Your task to perform on an android device: delete the emails in spam in the gmail app Image 0: 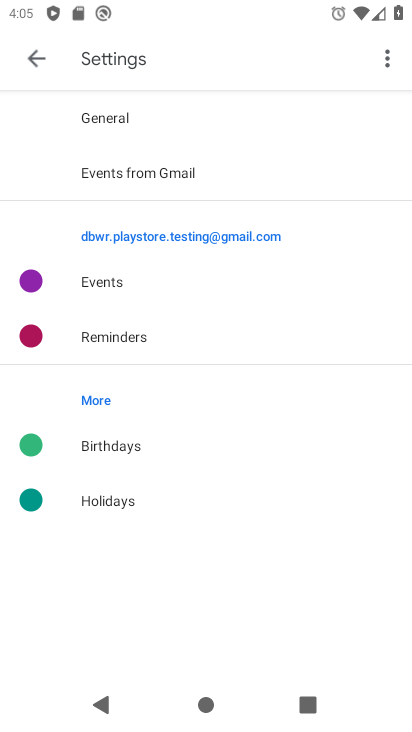
Step 0: drag from (296, 541) to (319, 386)
Your task to perform on an android device: delete the emails in spam in the gmail app Image 1: 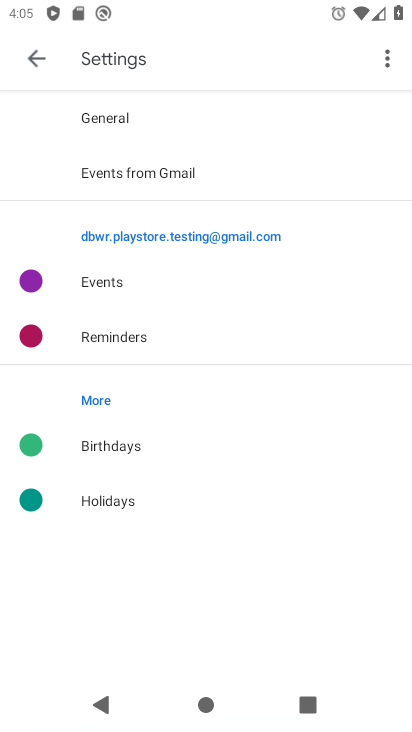
Step 1: press home button
Your task to perform on an android device: delete the emails in spam in the gmail app Image 2: 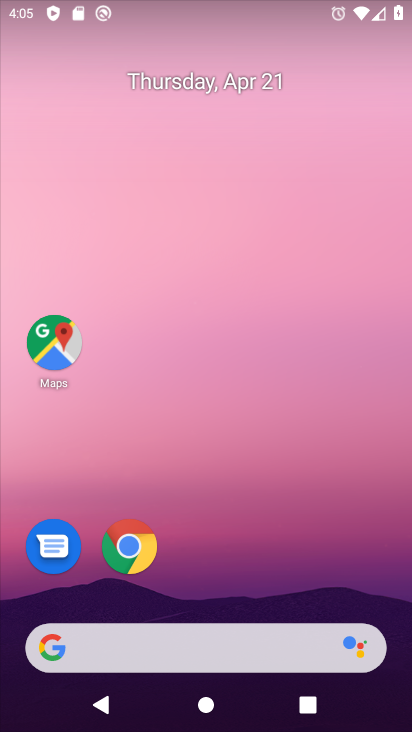
Step 2: drag from (245, 565) to (240, 179)
Your task to perform on an android device: delete the emails in spam in the gmail app Image 3: 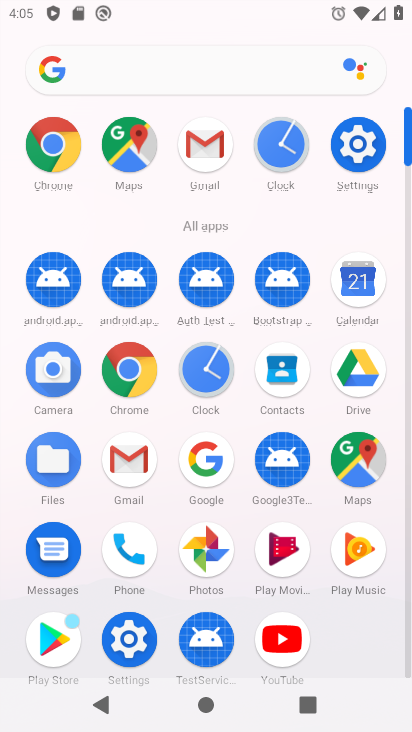
Step 3: click (135, 463)
Your task to perform on an android device: delete the emails in spam in the gmail app Image 4: 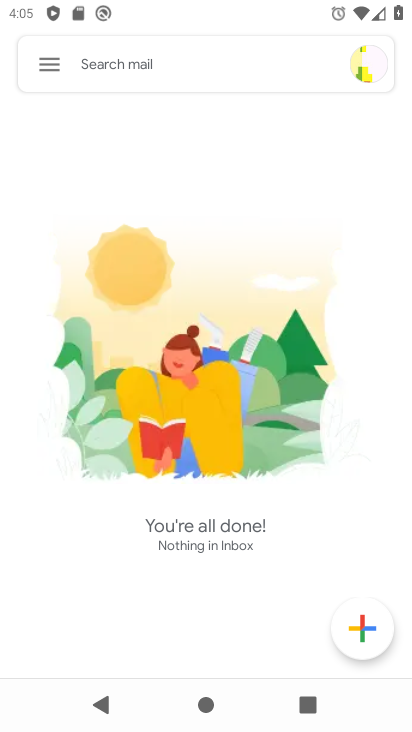
Step 4: click (44, 63)
Your task to perform on an android device: delete the emails in spam in the gmail app Image 5: 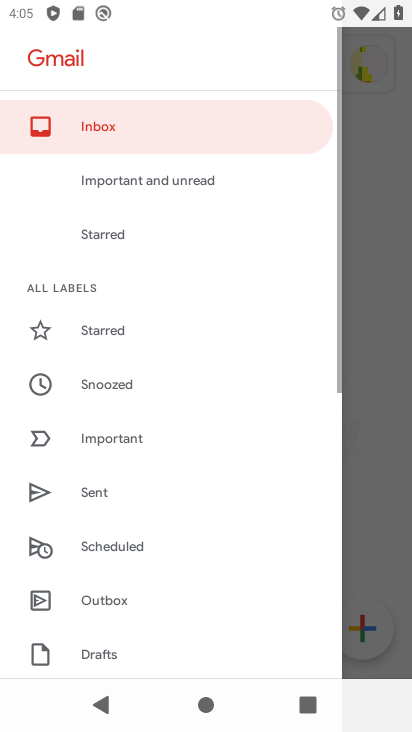
Step 5: drag from (161, 554) to (226, 260)
Your task to perform on an android device: delete the emails in spam in the gmail app Image 6: 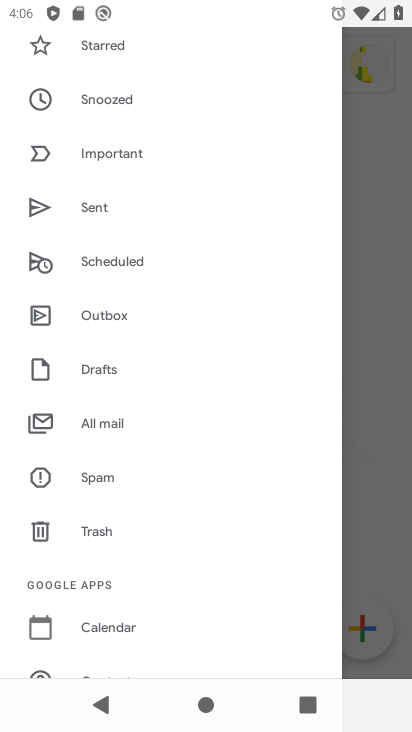
Step 6: click (126, 475)
Your task to perform on an android device: delete the emails in spam in the gmail app Image 7: 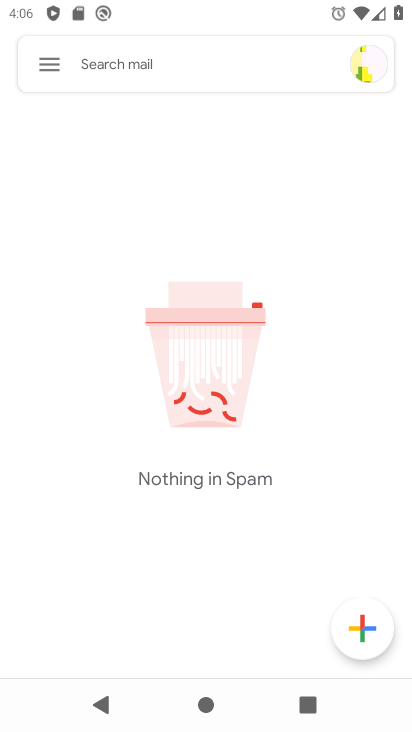
Step 7: task complete